Your task to perform on an android device: Is it going to rain tomorrow? Image 0: 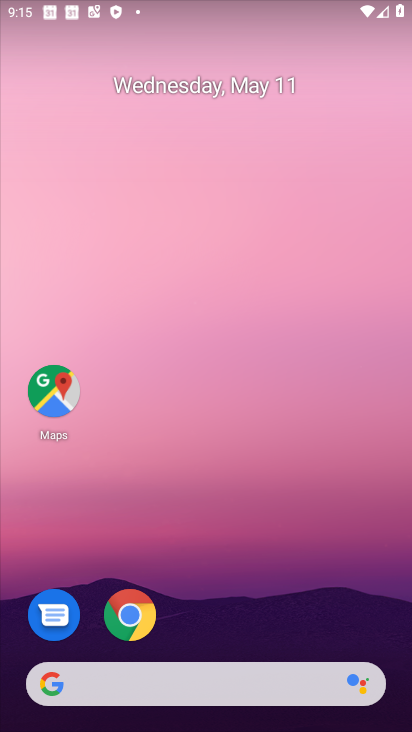
Step 0: press home button
Your task to perform on an android device: Is it going to rain tomorrow? Image 1: 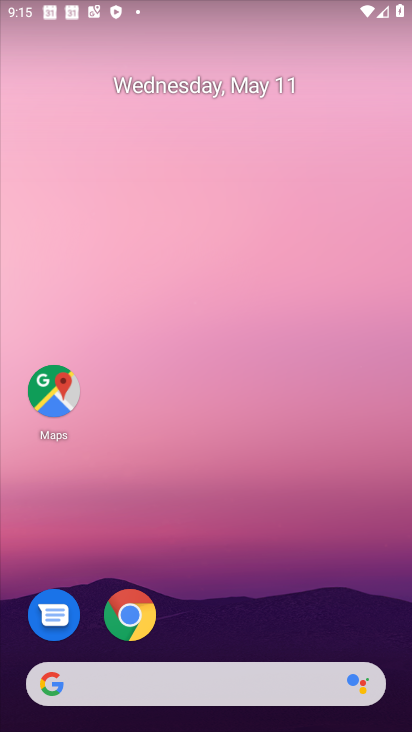
Step 1: click (134, 689)
Your task to perform on an android device: Is it going to rain tomorrow? Image 2: 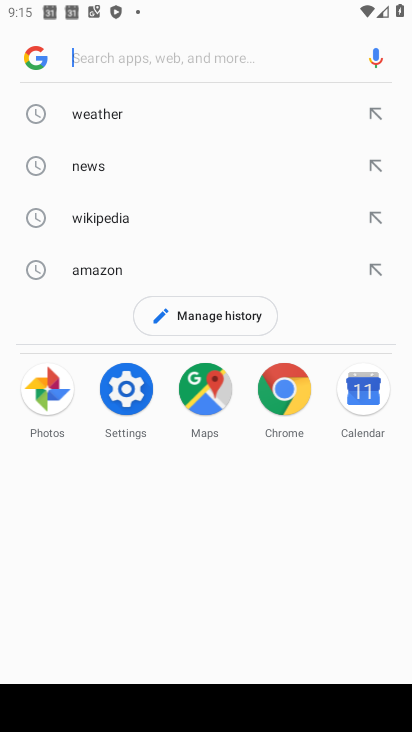
Step 2: click (71, 166)
Your task to perform on an android device: Is it going to rain tomorrow? Image 3: 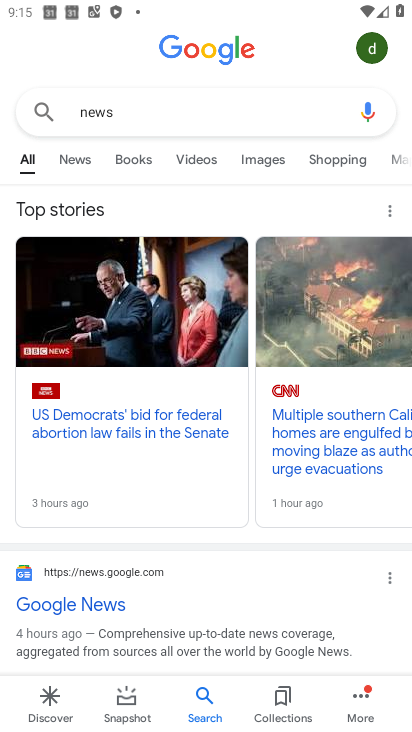
Step 3: press back button
Your task to perform on an android device: Is it going to rain tomorrow? Image 4: 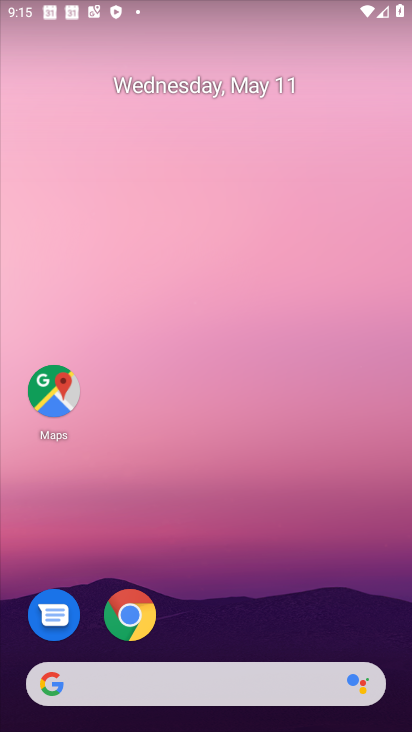
Step 4: click (100, 676)
Your task to perform on an android device: Is it going to rain tomorrow? Image 5: 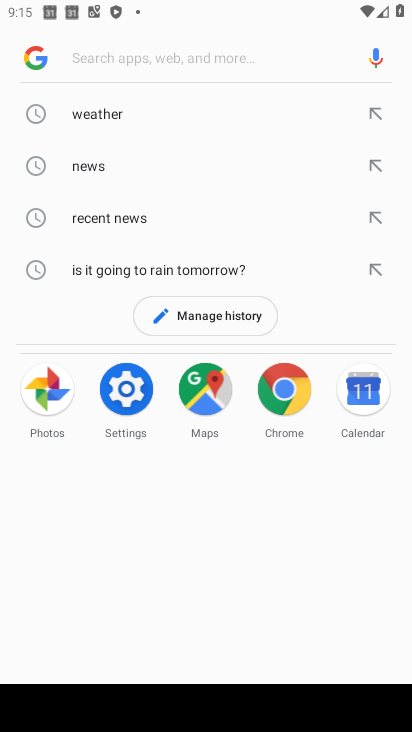
Step 5: click (79, 165)
Your task to perform on an android device: Is it going to rain tomorrow? Image 6: 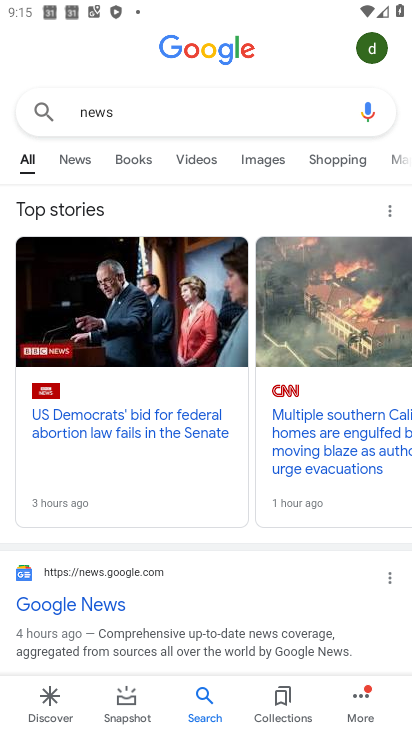
Step 6: task complete